Your task to perform on an android device: change timer sound Image 0: 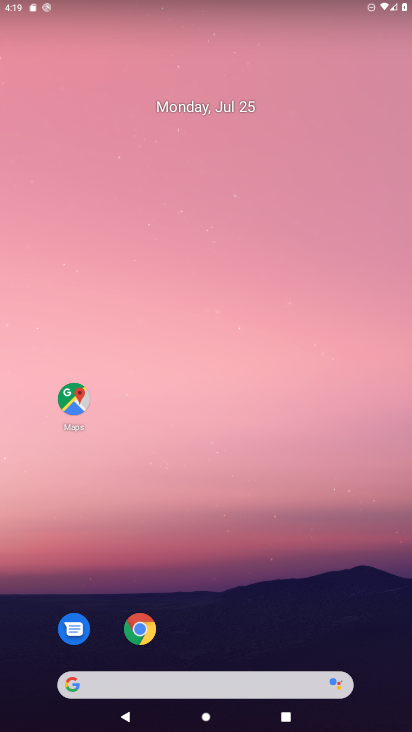
Step 0: drag from (191, 686) to (258, 26)
Your task to perform on an android device: change timer sound Image 1: 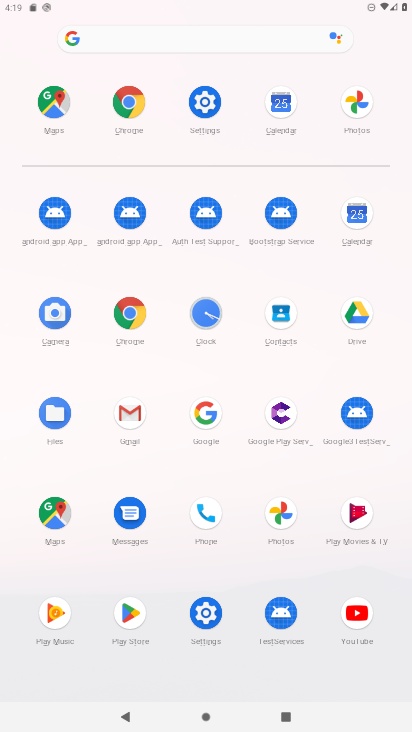
Step 1: click (193, 109)
Your task to perform on an android device: change timer sound Image 2: 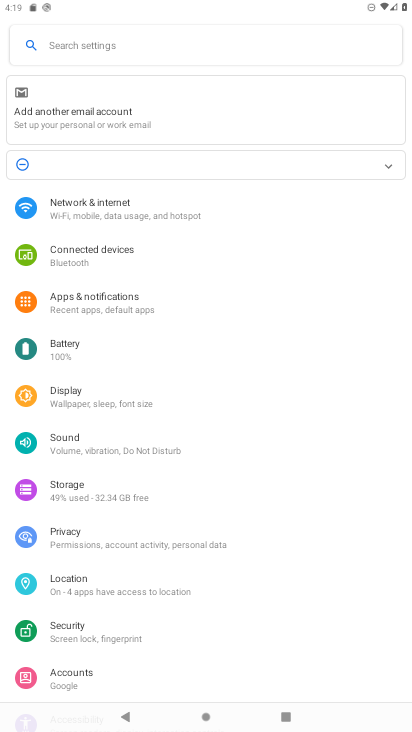
Step 2: press home button
Your task to perform on an android device: change timer sound Image 3: 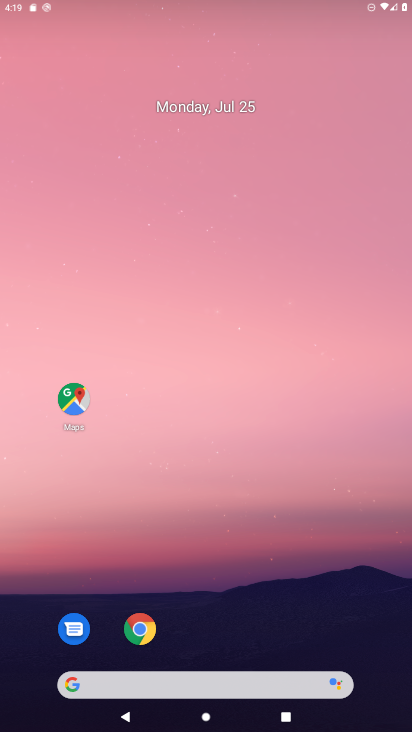
Step 3: drag from (229, 677) to (196, 46)
Your task to perform on an android device: change timer sound Image 4: 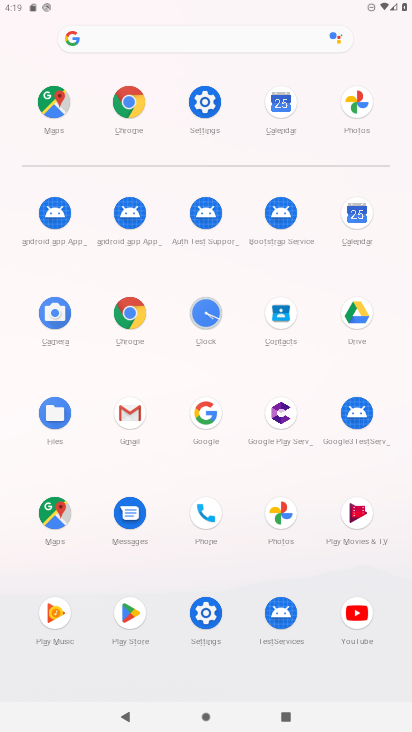
Step 4: click (209, 311)
Your task to perform on an android device: change timer sound Image 5: 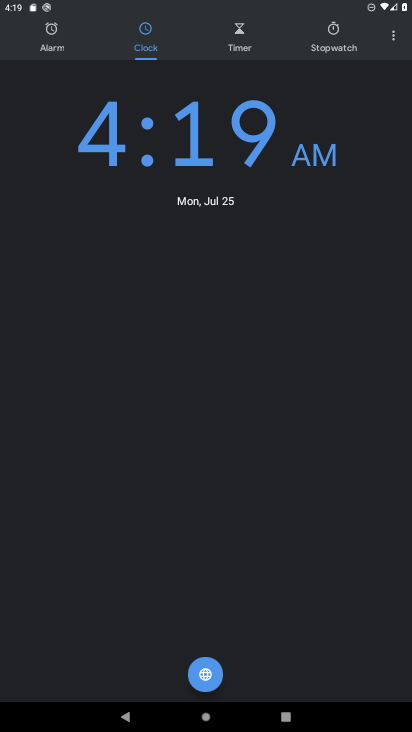
Step 5: click (236, 40)
Your task to perform on an android device: change timer sound Image 6: 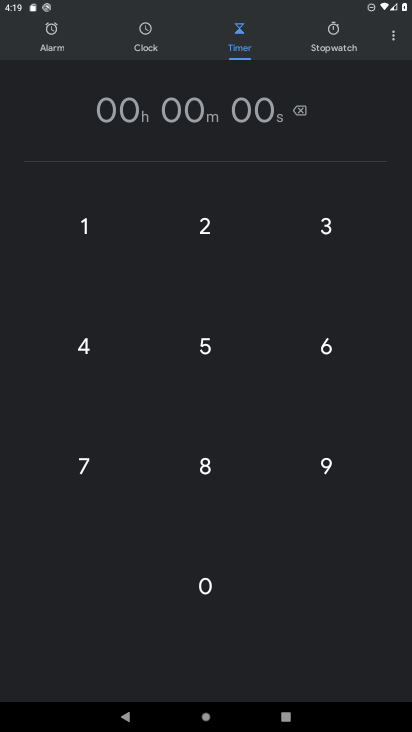
Step 6: click (391, 32)
Your task to perform on an android device: change timer sound Image 7: 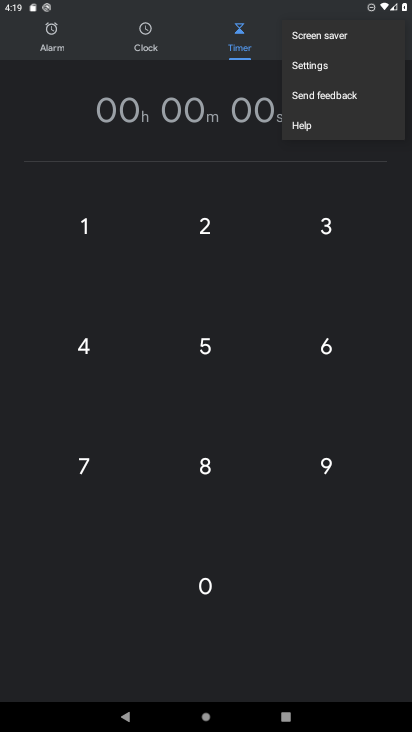
Step 7: click (311, 62)
Your task to perform on an android device: change timer sound Image 8: 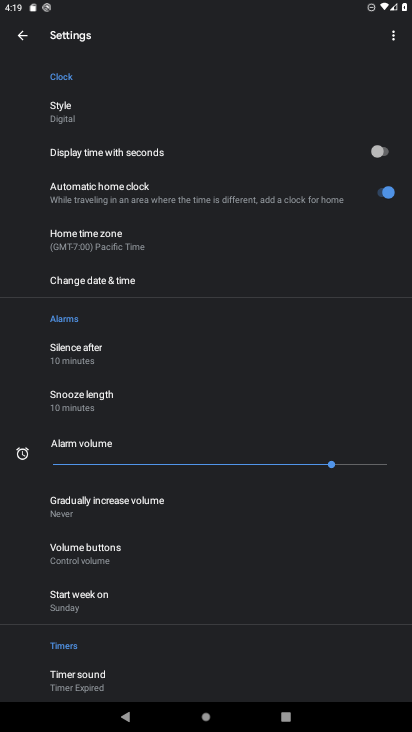
Step 8: click (94, 676)
Your task to perform on an android device: change timer sound Image 9: 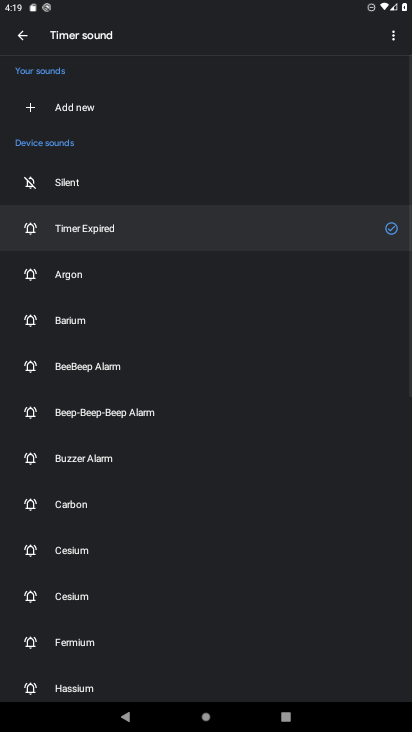
Step 9: click (70, 271)
Your task to perform on an android device: change timer sound Image 10: 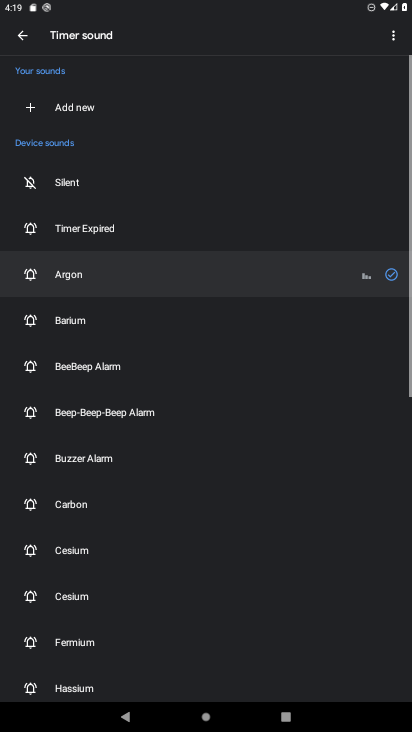
Step 10: task complete